Your task to perform on an android device: open wifi settings Image 0: 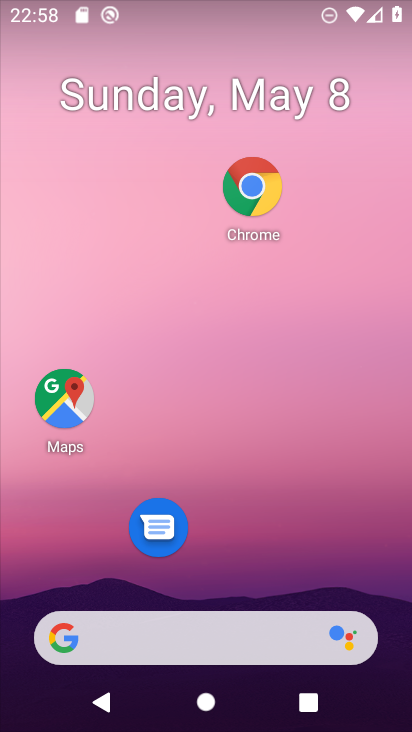
Step 0: click (278, 298)
Your task to perform on an android device: open wifi settings Image 1: 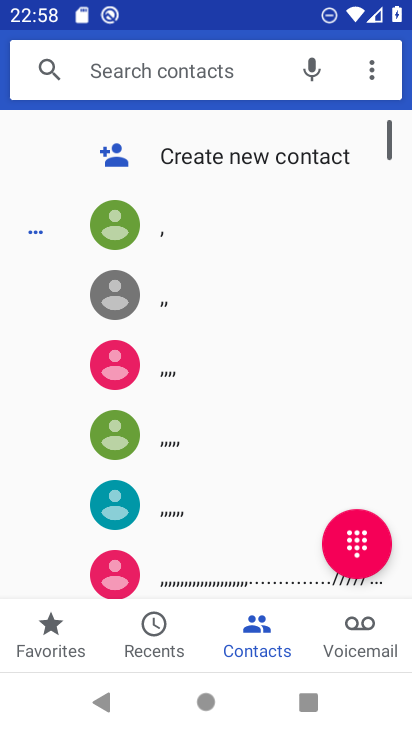
Step 1: drag from (246, 436) to (262, 296)
Your task to perform on an android device: open wifi settings Image 2: 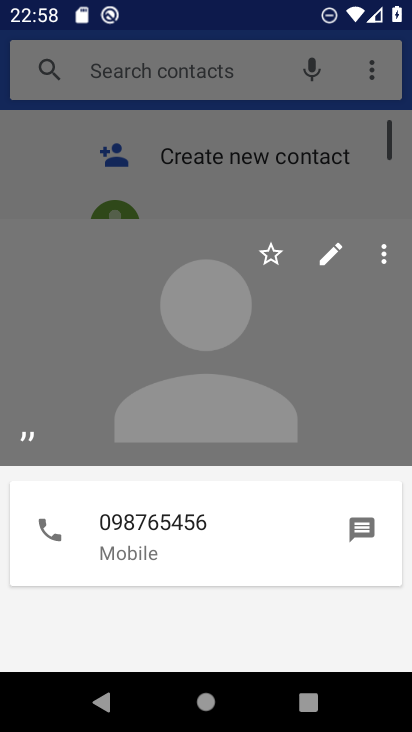
Step 2: press home button
Your task to perform on an android device: open wifi settings Image 3: 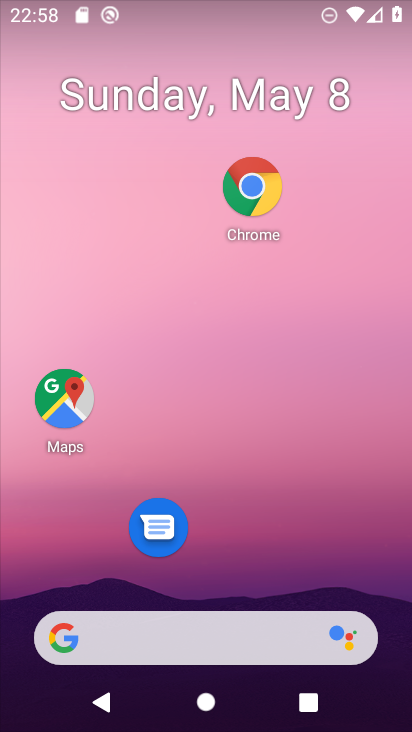
Step 3: drag from (260, 591) to (278, 324)
Your task to perform on an android device: open wifi settings Image 4: 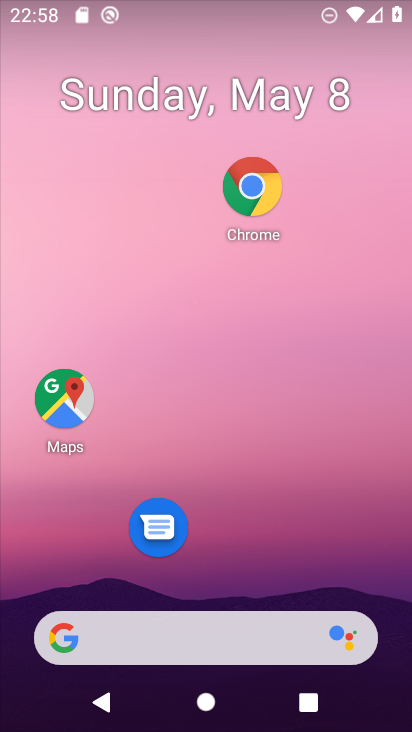
Step 4: drag from (269, 518) to (314, 216)
Your task to perform on an android device: open wifi settings Image 5: 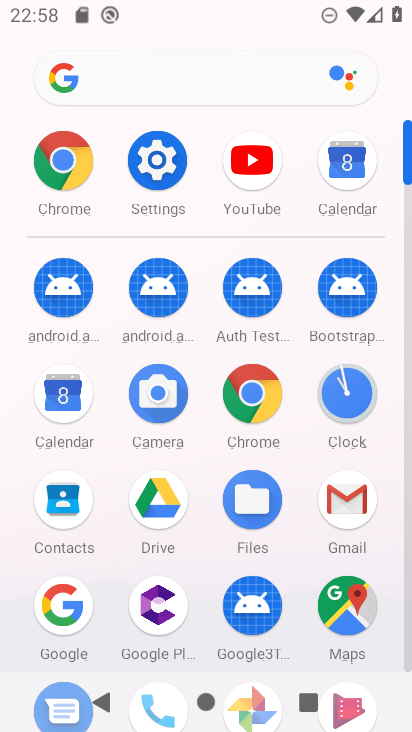
Step 5: click (157, 150)
Your task to perform on an android device: open wifi settings Image 6: 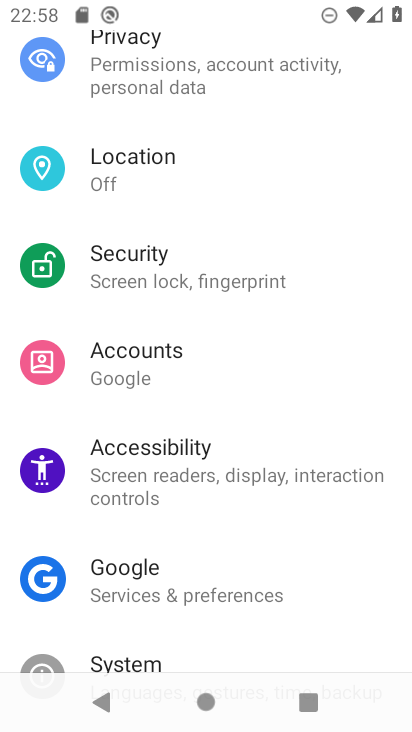
Step 6: drag from (242, 133) to (205, 555)
Your task to perform on an android device: open wifi settings Image 7: 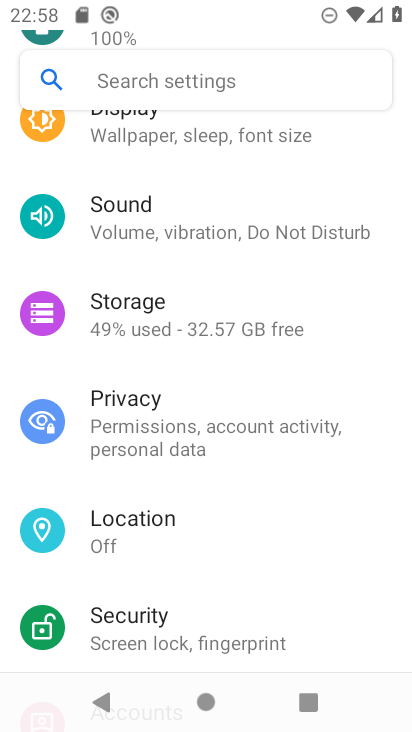
Step 7: drag from (189, 215) to (193, 543)
Your task to perform on an android device: open wifi settings Image 8: 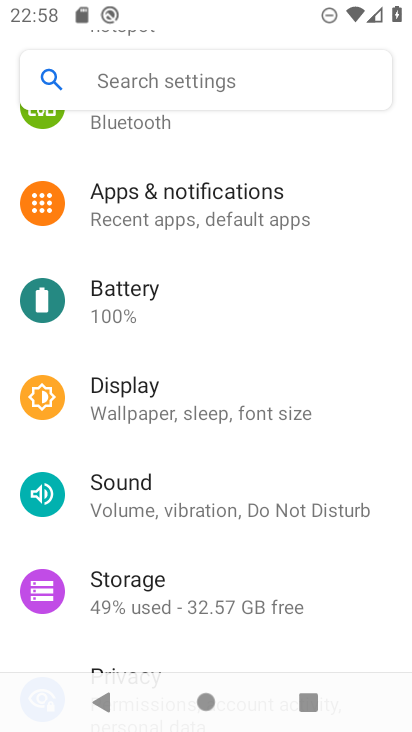
Step 8: drag from (210, 132) to (211, 588)
Your task to perform on an android device: open wifi settings Image 9: 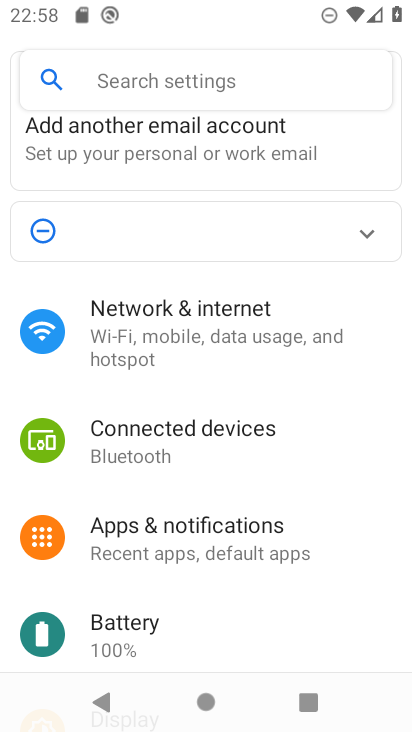
Step 9: click (208, 336)
Your task to perform on an android device: open wifi settings Image 10: 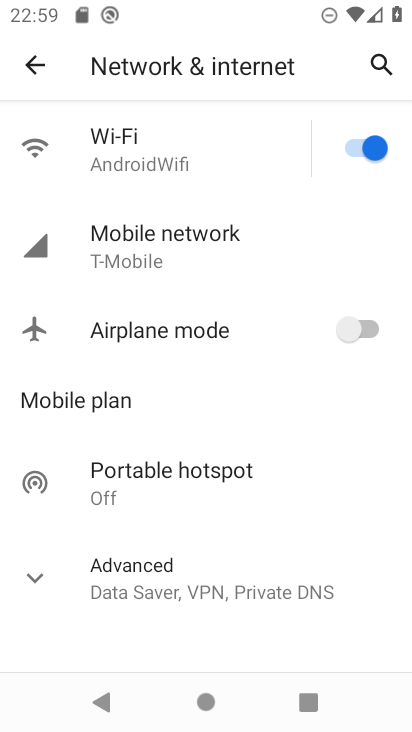
Step 10: drag from (217, 578) to (246, 159)
Your task to perform on an android device: open wifi settings Image 11: 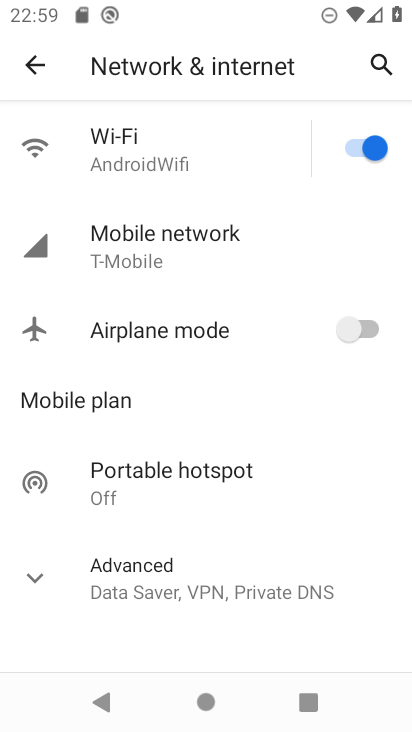
Step 11: click (175, 141)
Your task to perform on an android device: open wifi settings Image 12: 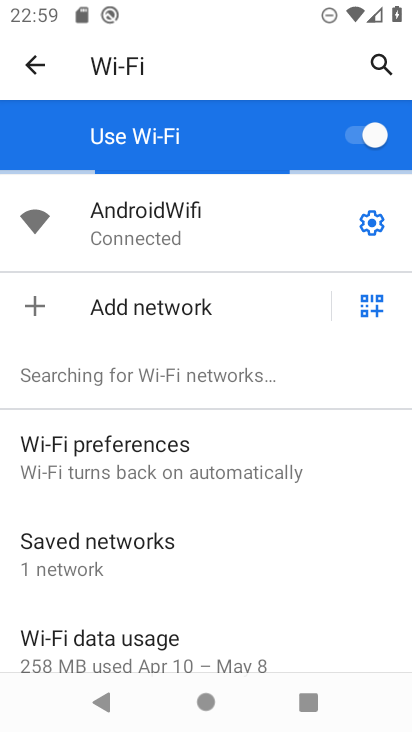
Step 12: task complete